Your task to perform on an android device: What's on my calendar today? Image 0: 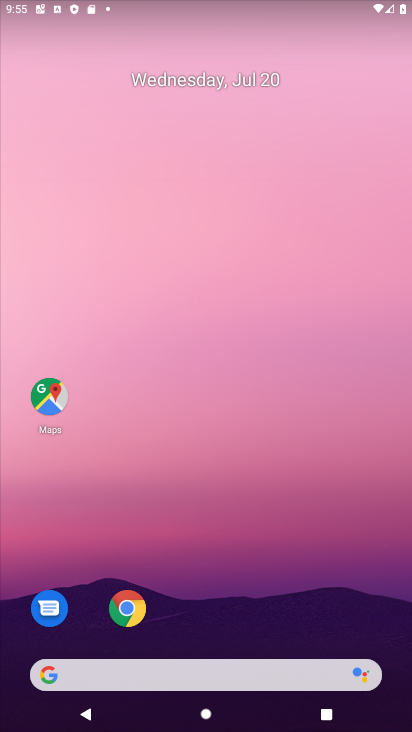
Step 0: drag from (301, 566) to (328, 52)
Your task to perform on an android device: What's on my calendar today? Image 1: 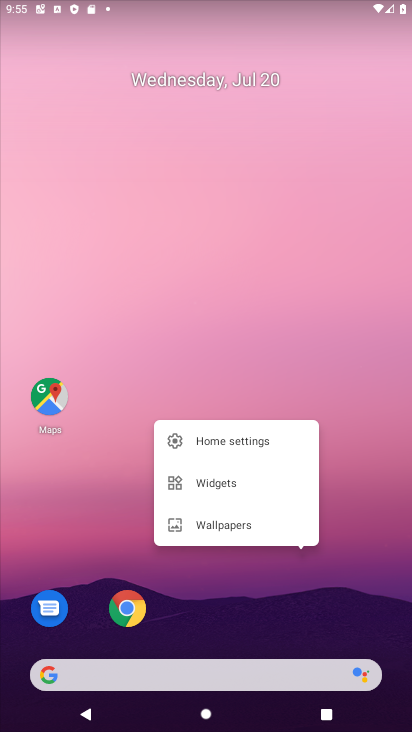
Step 1: drag from (216, 593) to (247, 137)
Your task to perform on an android device: What's on my calendar today? Image 2: 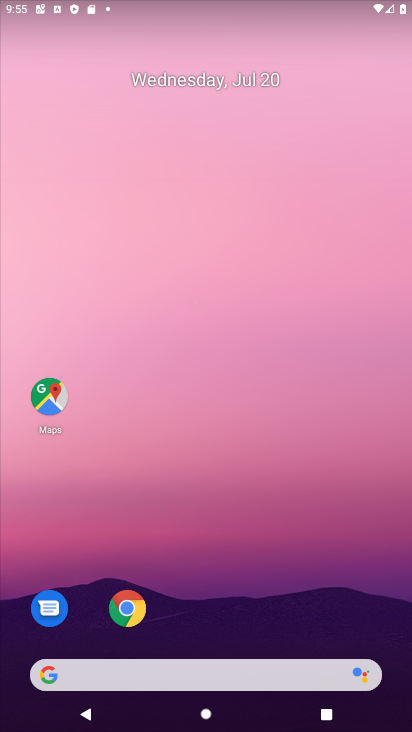
Step 2: drag from (242, 662) to (249, 118)
Your task to perform on an android device: What's on my calendar today? Image 3: 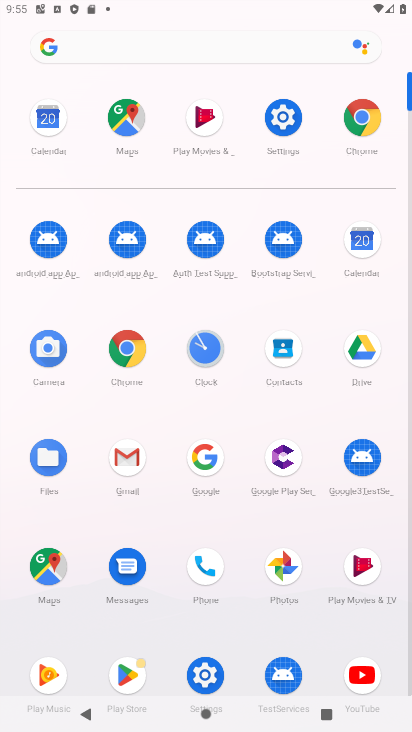
Step 3: click (365, 248)
Your task to perform on an android device: What's on my calendar today? Image 4: 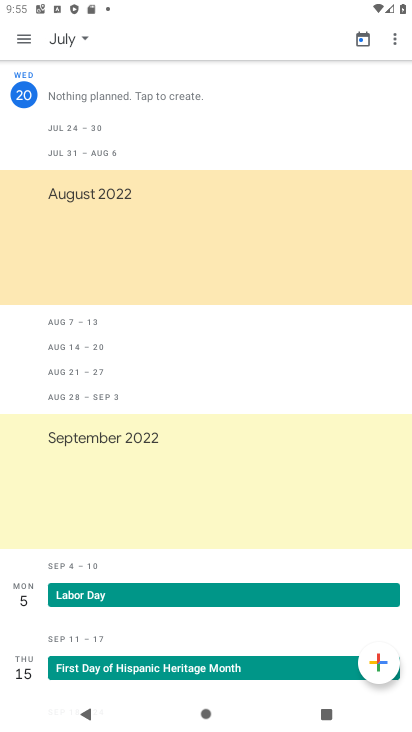
Step 4: click (16, 47)
Your task to perform on an android device: What's on my calendar today? Image 5: 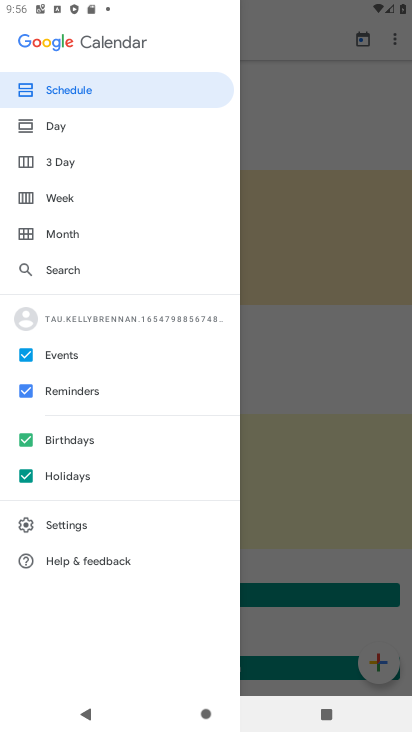
Step 5: click (65, 139)
Your task to perform on an android device: What's on my calendar today? Image 6: 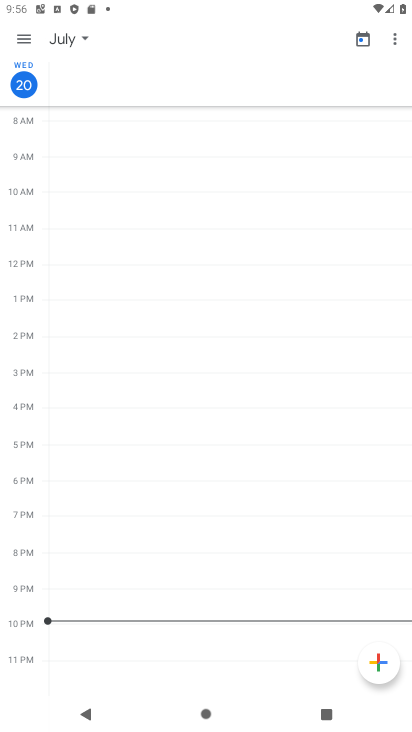
Step 6: task complete